Your task to perform on an android device: stop showing notifications on the lock screen Image 0: 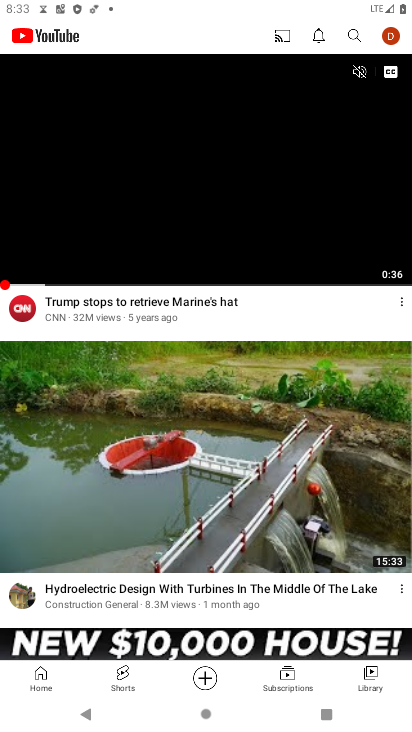
Step 0: press home button
Your task to perform on an android device: stop showing notifications on the lock screen Image 1: 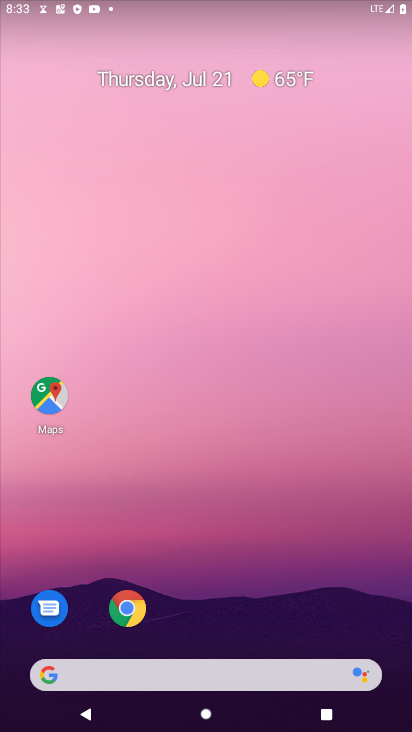
Step 1: drag from (202, 675) to (201, 92)
Your task to perform on an android device: stop showing notifications on the lock screen Image 2: 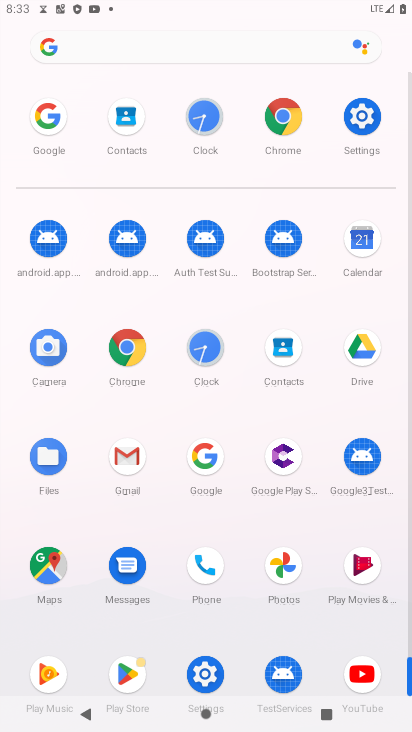
Step 2: click (362, 117)
Your task to perform on an android device: stop showing notifications on the lock screen Image 3: 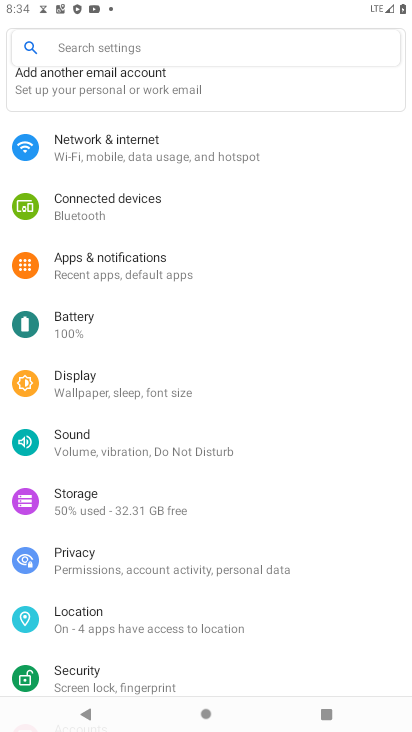
Step 3: click (127, 274)
Your task to perform on an android device: stop showing notifications on the lock screen Image 4: 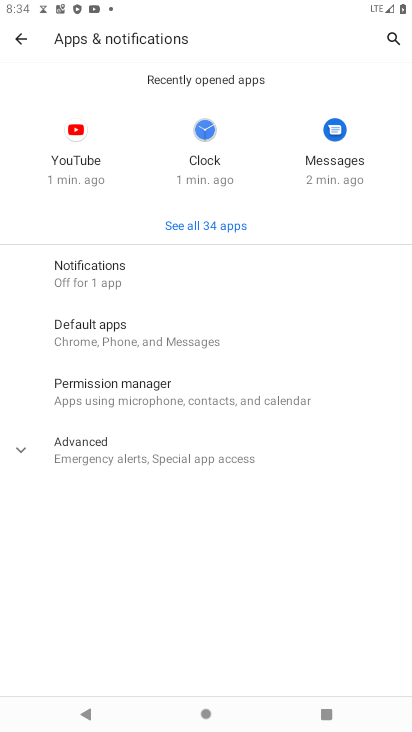
Step 4: click (92, 278)
Your task to perform on an android device: stop showing notifications on the lock screen Image 5: 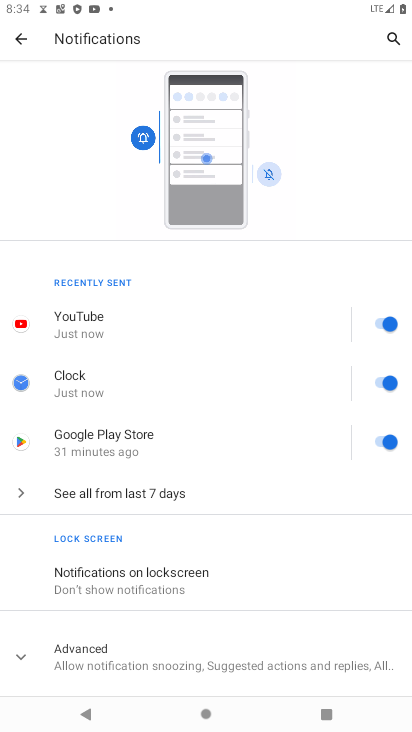
Step 5: click (130, 579)
Your task to perform on an android device: stop showing notifications on the lock screen Image 6: 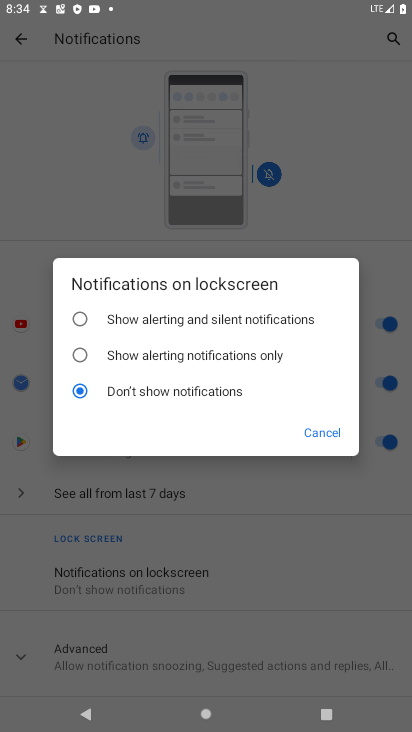
Step 6: click (81, 391)
Your task to perform on an android device: stop showing notifications on the lock screen Image 7: 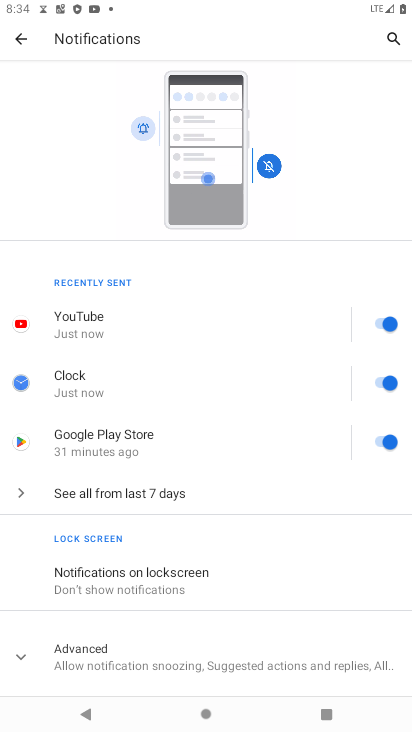
Step 7: task complete